Your task to perform on an android device: turn off location history Image 0: 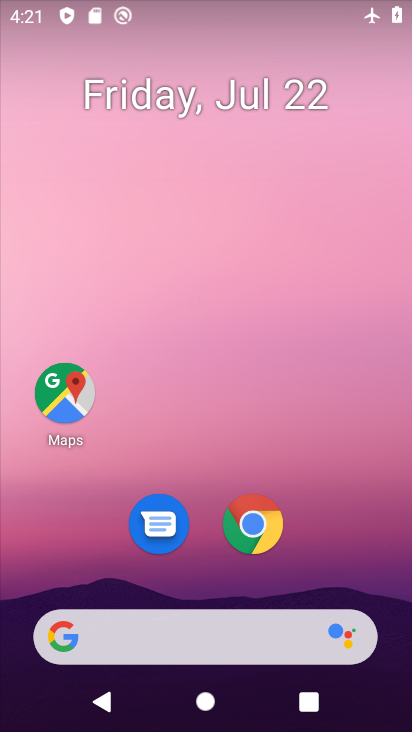
Step 0: drag from (387, 561) to (338, 20)
Your task to perform on an android device: turn off location history Image 1: 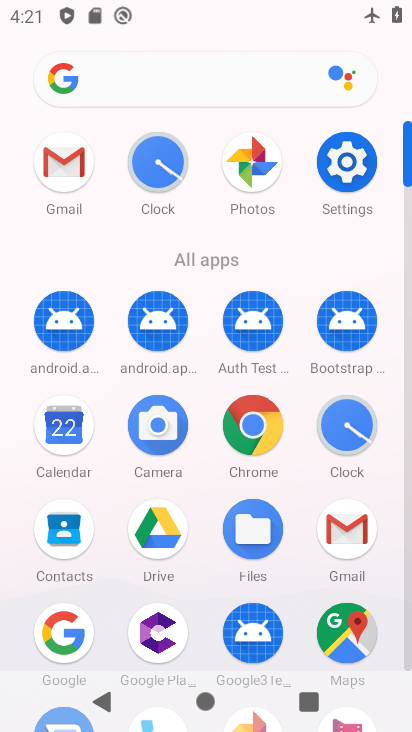
Step 1: click (346, 169)
Your task to perform on an android device: turn off location history Image 2: 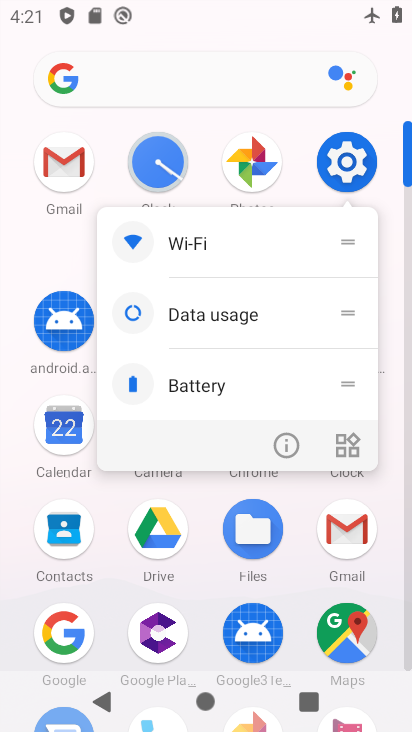
Step 2: click (346, 166)
Your task to perform on an android device: turn off location history Image 3: 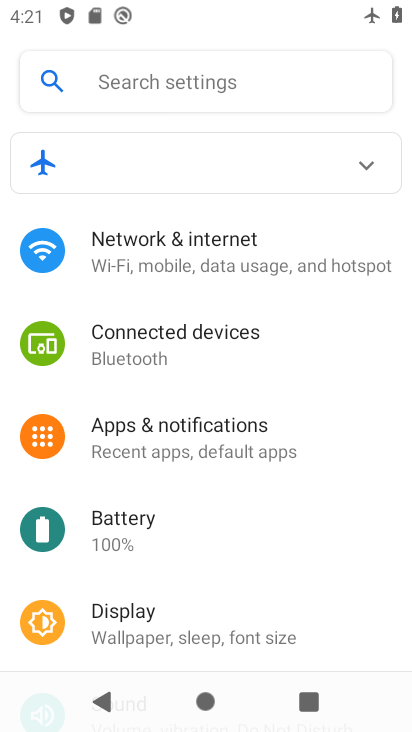
Step 3: drag from (238, 570) to (268, 186)
Your task to perform on an android device: turn off location history Image 4: 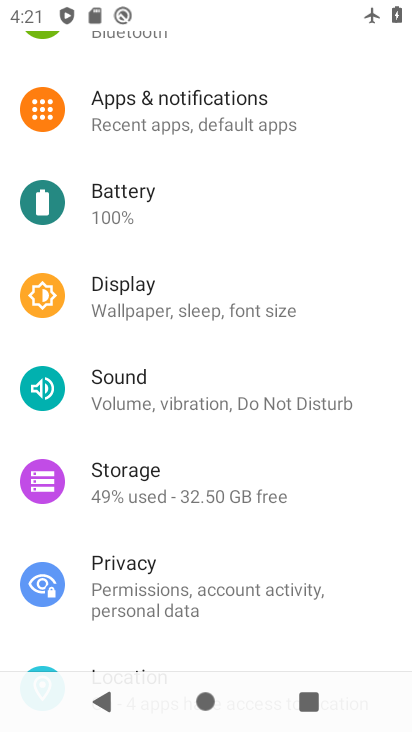
Step 4: drag from (202, 564) to (198, 217)
Your task to perform on an android device: turn off location history Image 5: 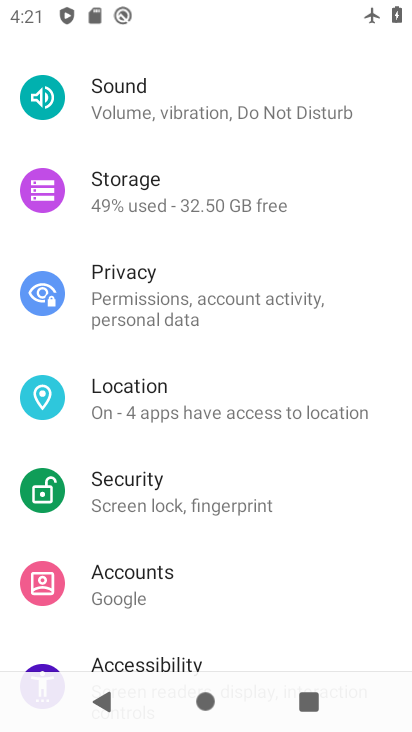
Step 5: click (191, 406)
Your task to perform on an android device: turn off location history Image 6: 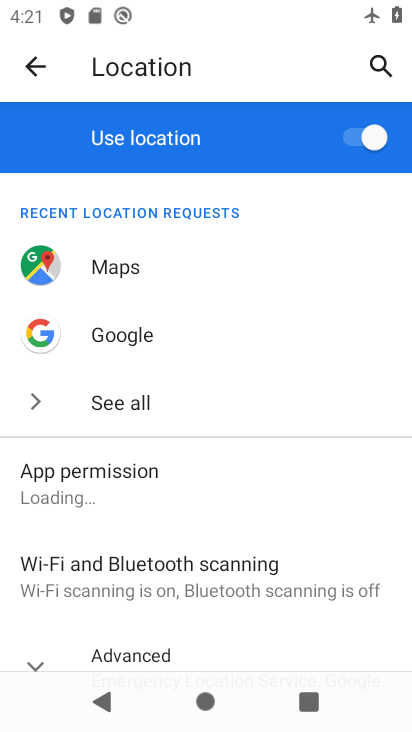
Step 6: drag from (184, 534) to (228, 232)
Your task to perform on an android device: turn off location history Image 7: 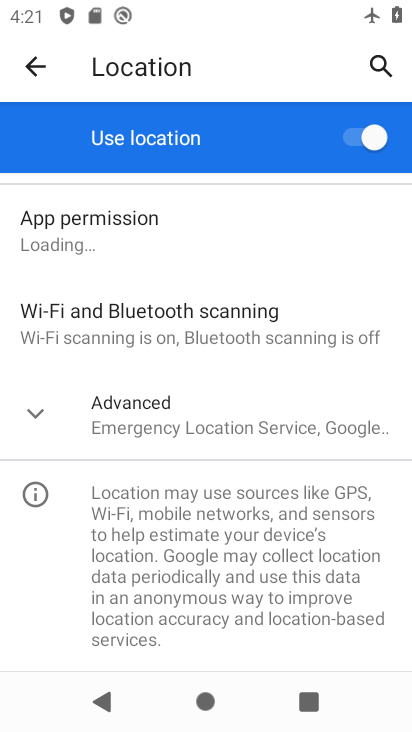
Step 7: click (36, 415)
Your task to perform on an android device: turn off location history Image 8: 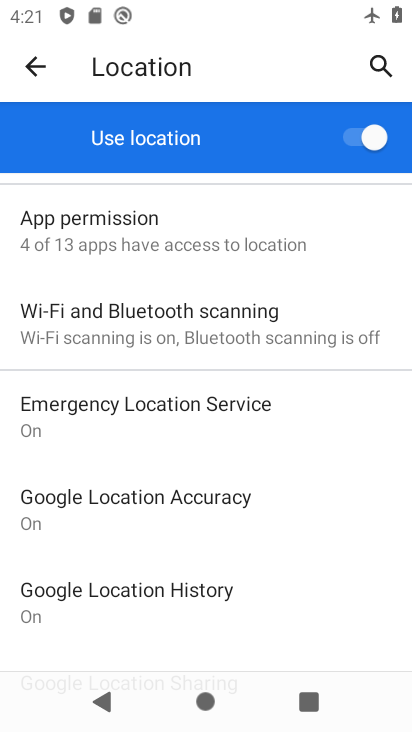
Step 8: click (105, 594)
Your task to perform on an android device: turn off location history Image 9: 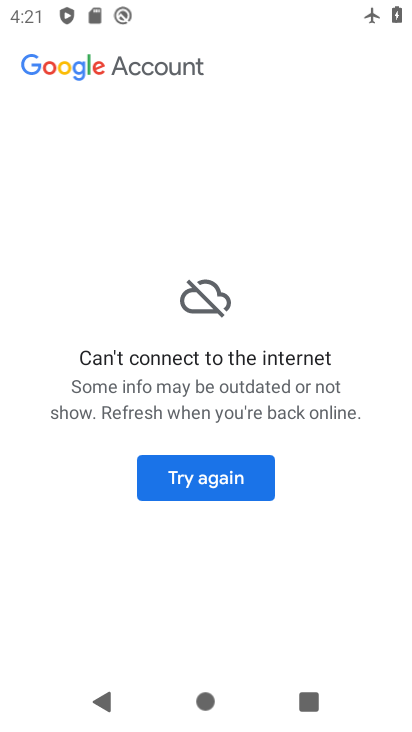
Step 9: click (231, 476)
Your task to perform on an android device: turn off location history Image 10: 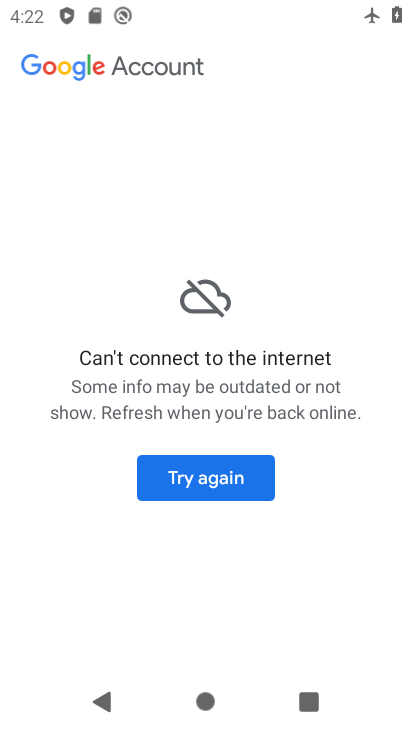
Step 10: task complete